Your task to perform on an android device: Open sound settings Image 0: 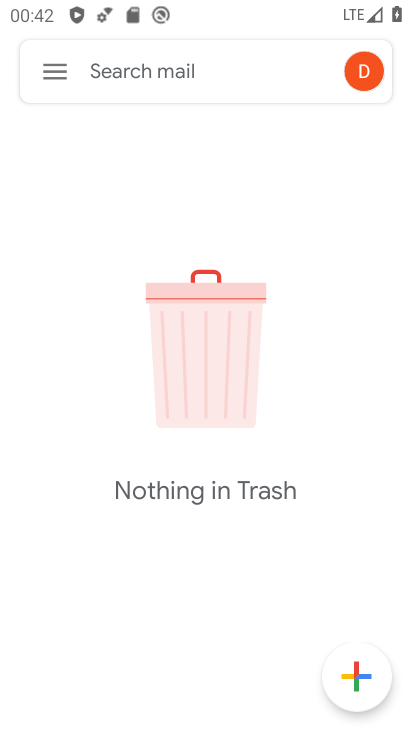
Step 0: press home button
Your task to perform on an android device: Open sound settings Image 1: 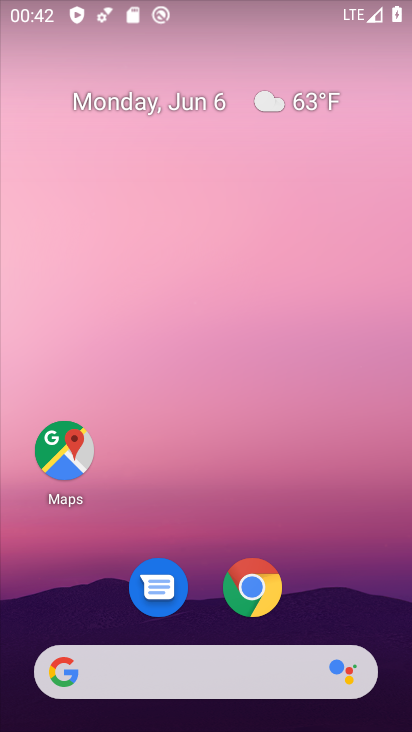
Step 1: drag from (355, 596) to (304, 198)
Your task to perform on an android device: Open sound settings Image 2: 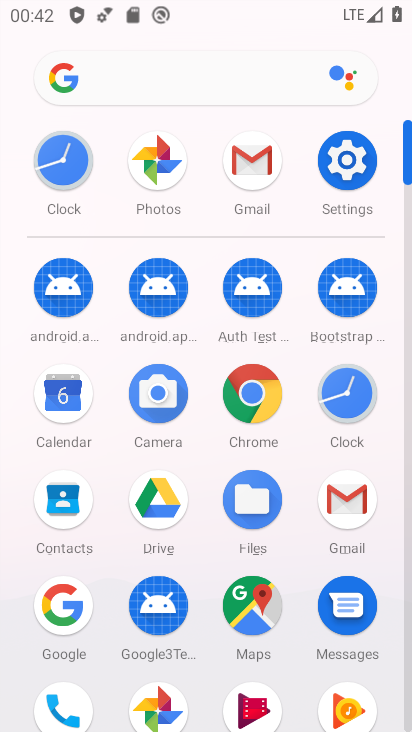
Step 2: click (372, 159)
Your task to perform on an android device: Open sound settings Image 3: 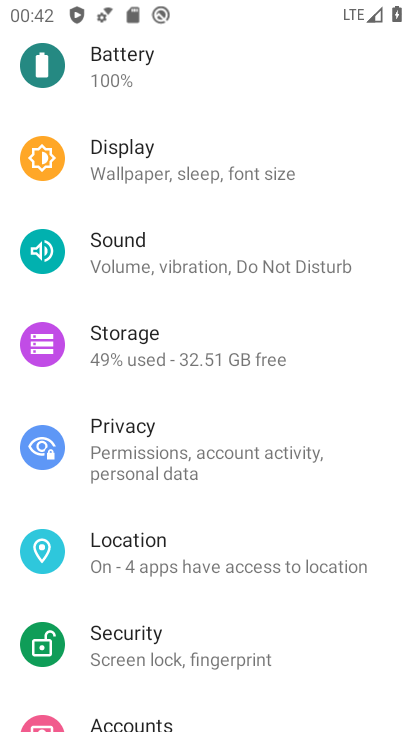
Step 3: click (260, 255)
Your task to perform on an android device: Open sound settings Image 4: 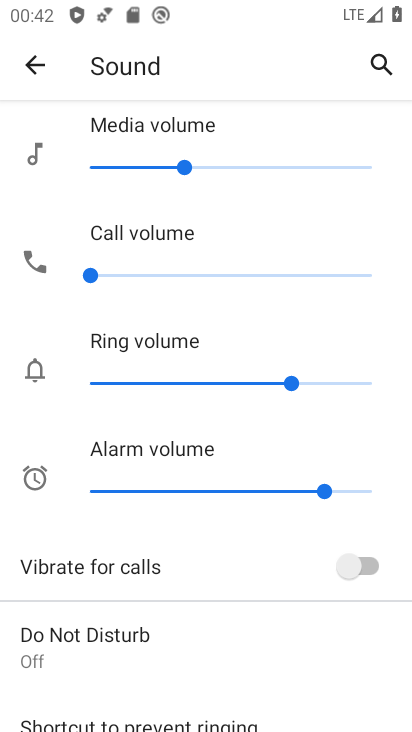
Step 4: task complete